Your task to perform on an android device: Show me popular videos on Youtube Image 0: 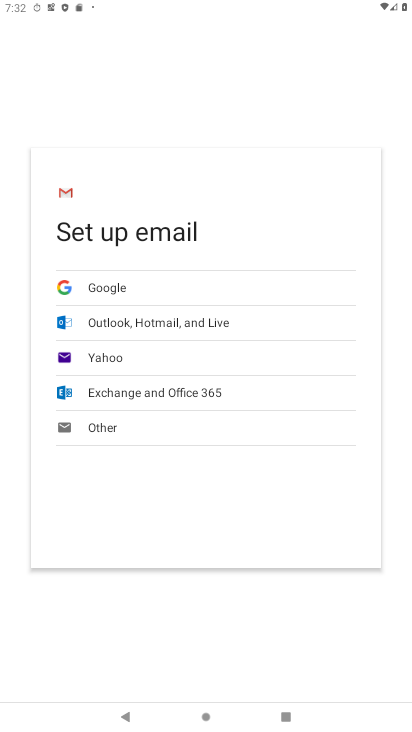
Step 0: press home button
Your task to perform on an android device: Show me popular videos on Youtube Image 1: 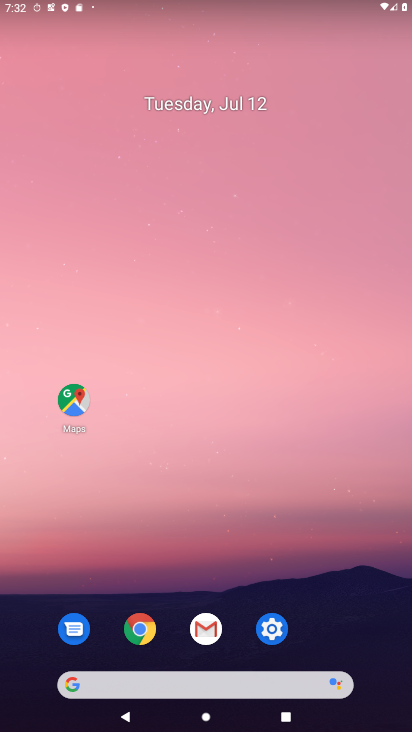
Step 1: drag from (271, 688) to (287, 135)
Your task to perform on an android device: Show me popular videos on Youtube Image 2: 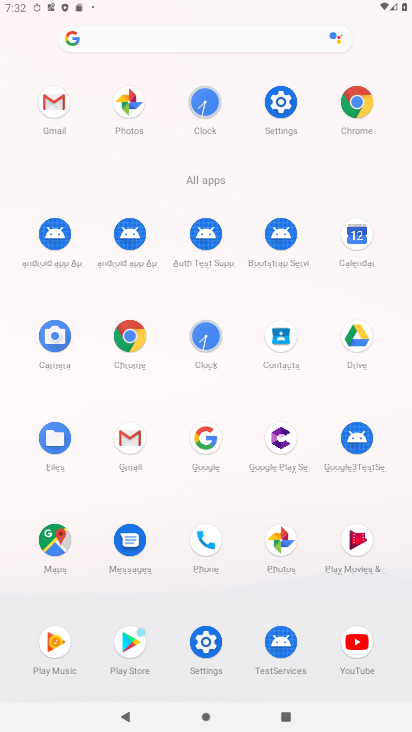
Step 2: click (345, 629)
Your task to perform on an android device: Show me popular videos on Youtube Image 3: 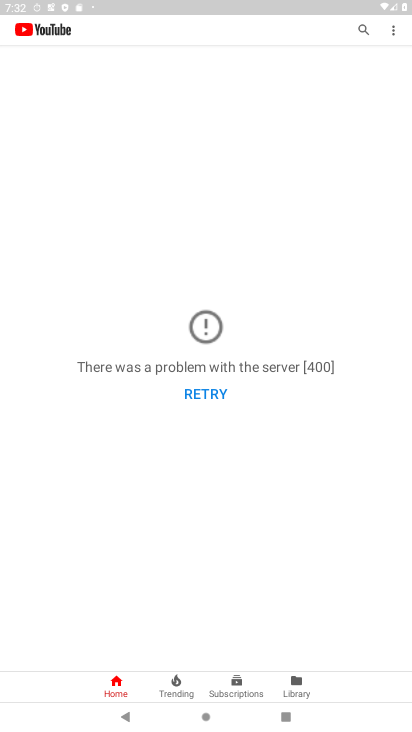
Step 3: click (352, 28)
Your task to perform on an android device: Show me popular videos on Youtube Image 4: 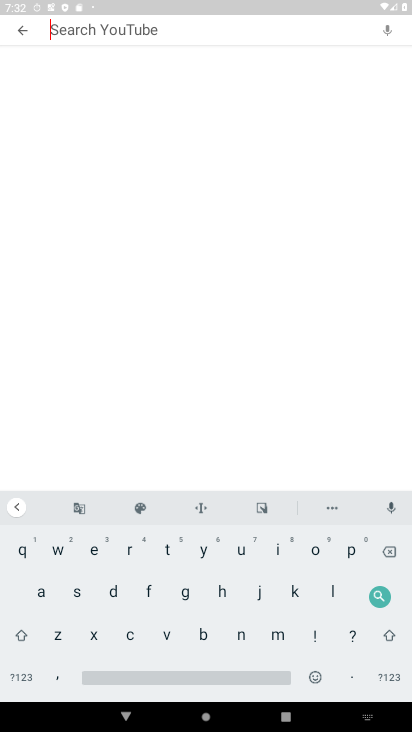
Step 4: click (346, 549)
Your task to perform on an android device: Show me popular videos on Youtube Image 5: 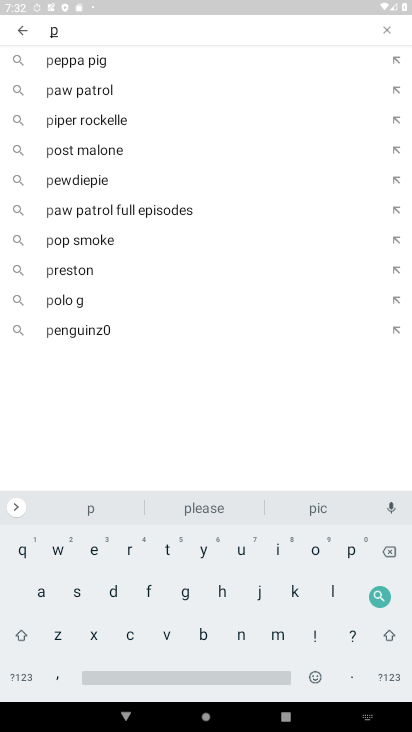
Step 5: click (321, 549)
Your task to perform on an android device: Show me popular videos on Youtube Image 6: 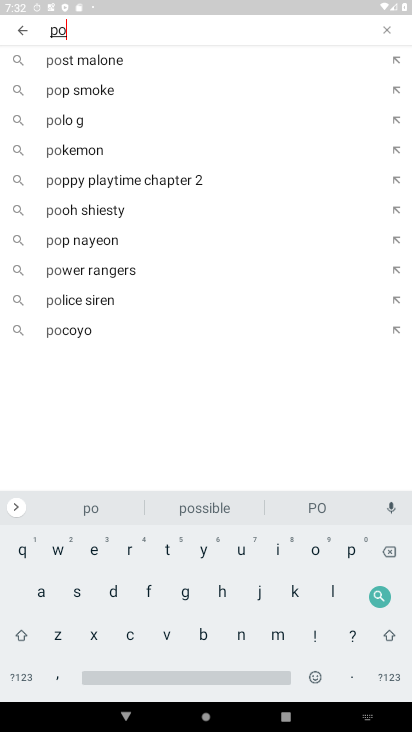
Step 6: click (348, 555)
Your task to perform on an android device: Show me popular videos on Youtube Image 7: 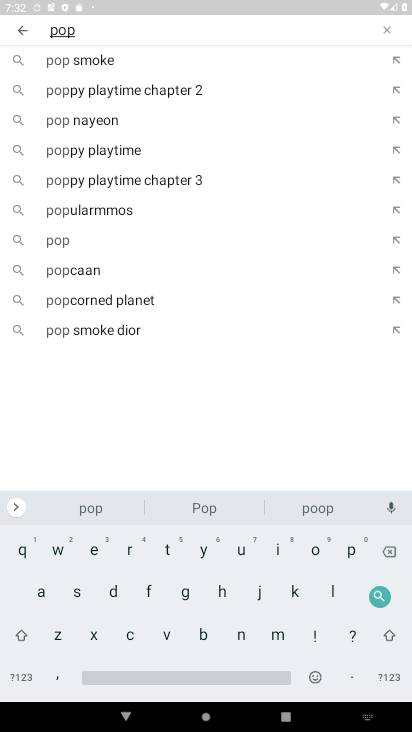
Step 7: click (241, 557)
Your task to perform on an android device: Show me popular videos on Youtube Image 8: 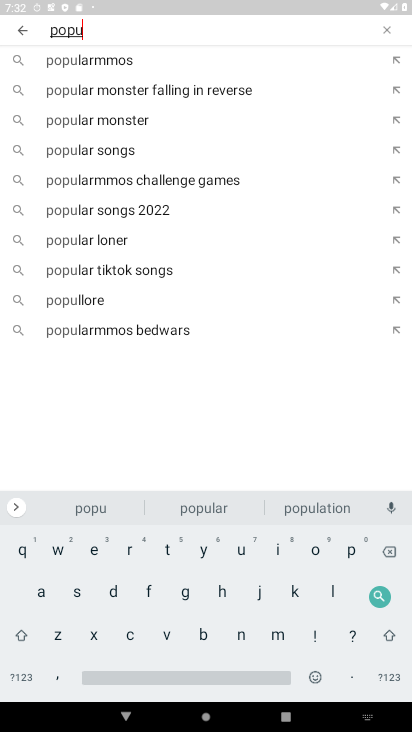
Step 8: click (215, 510)
Your task to perform on an android device: Show me popular videos on Youtube Image 9: 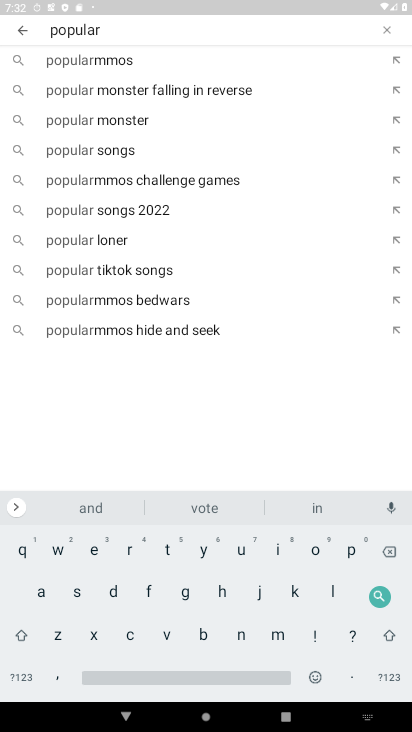
Step 9: click (165, 650)
Your task to perform on an android device: Show me popular videos on Youtube Image 10: 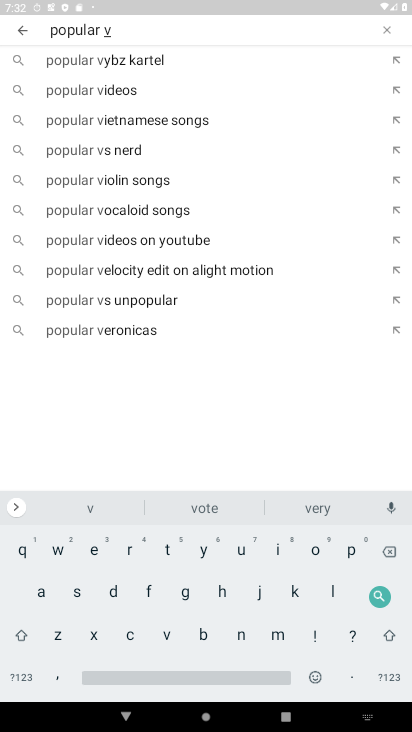
Step 10: click (133, 91)
Your task to perform on an android device: Show me popular videos on Youtube Image 11: 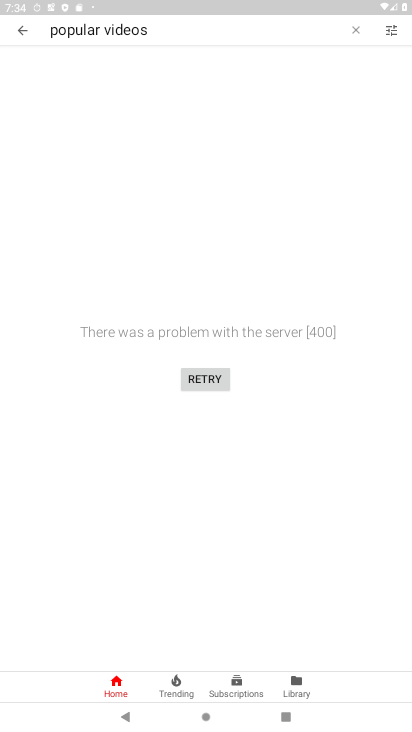
Step 11: task complete